Your task to perform on an android device: Find coffee shops on Maps Image 0: 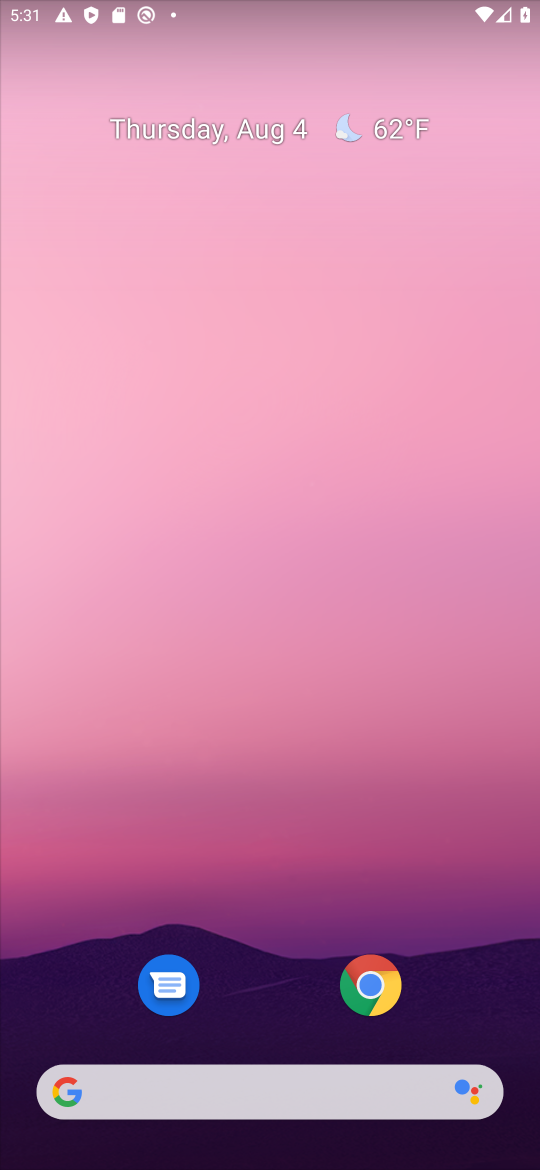
Step 0: drag from (304, 1069) to (340, 554)
Your task to perform on an android device: Find coffee shops on Maps Image 1: 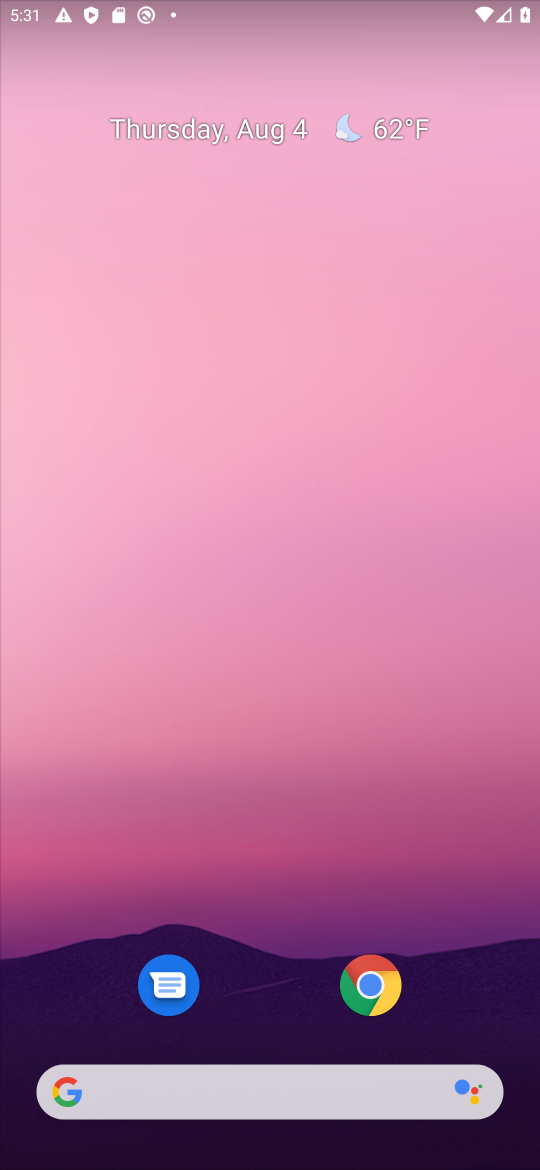
Step 1: drag from (248, 1067) to (336, 511)
Your task to perform on an android device: Find coffee shops on Maps Image 2: 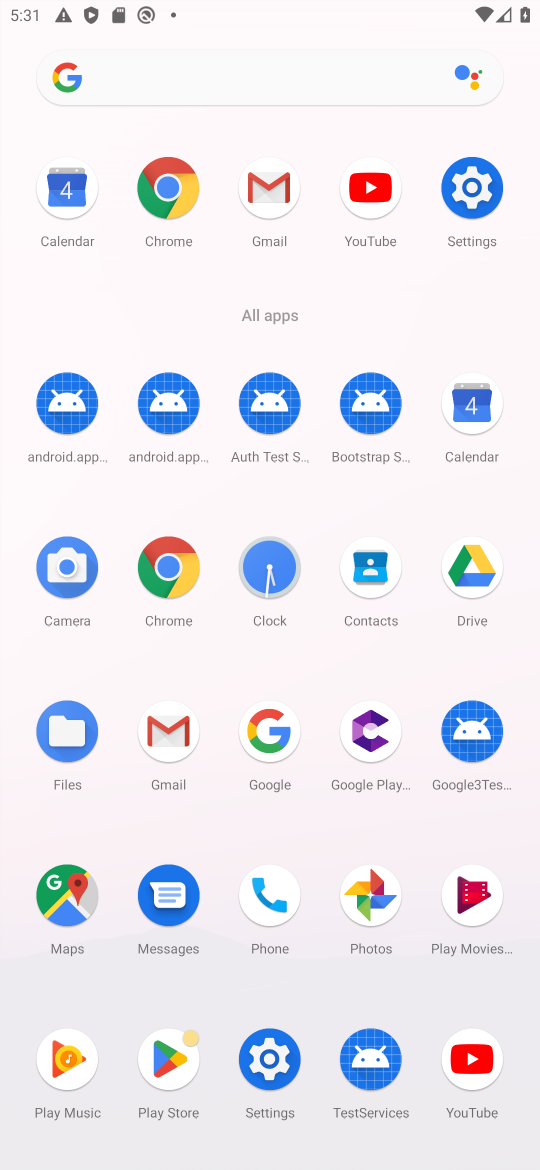
Step 2: click (64, 894)
Your task to perform on an android device: Find coffee shops on Maps Image 3: 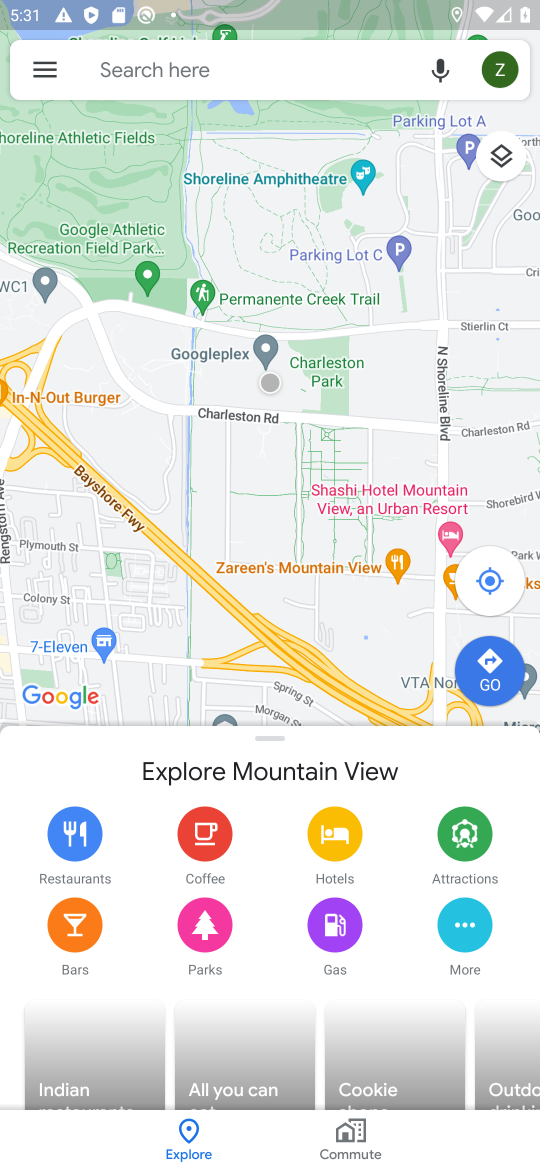
Step 3: click (220, 61)
Your task to perform on an android device: Find coffee shops on Maps Image 4: 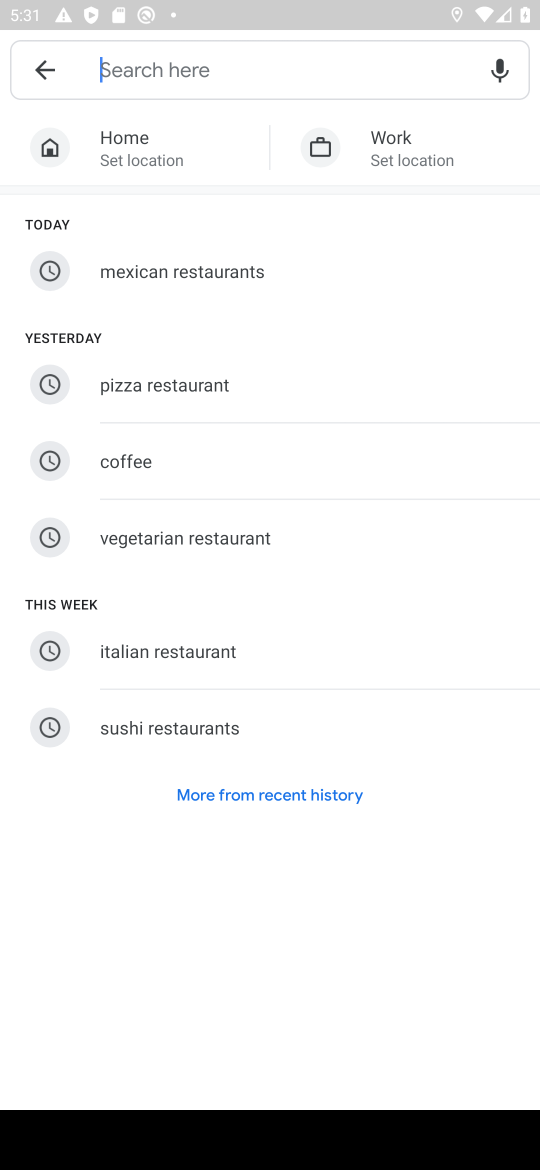
Step 4: click (202, 53)
Your task to perform on an android device: Find coffee shops on Maps Image 5: 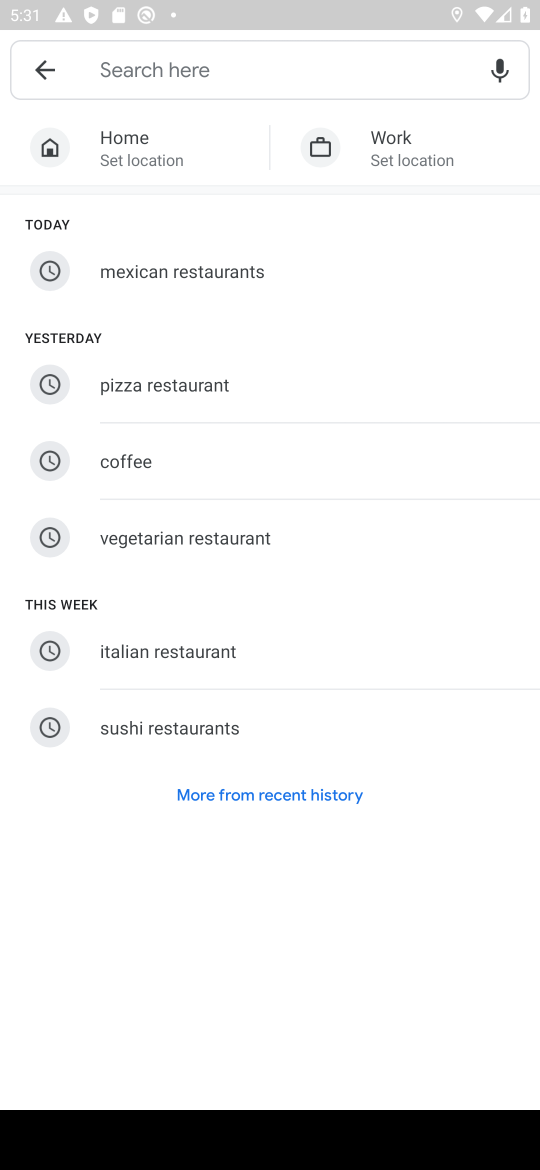
Step 5: type "coffee shops"
Your task to perform on an android device: Find coffee shops on Maps Image 6: 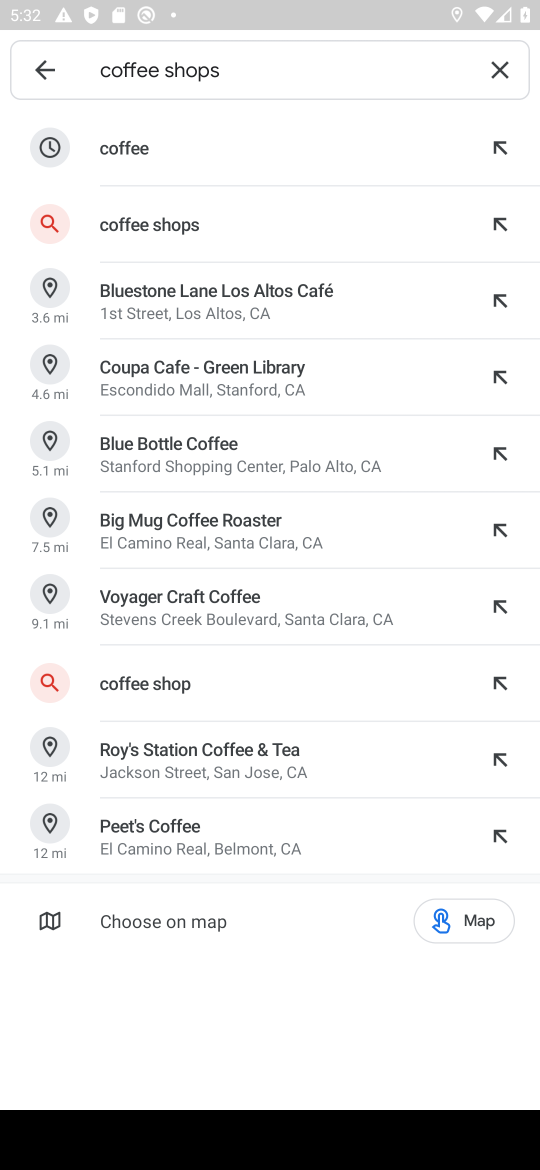
Step 6: click (178, 233)
Your task to perform on an android device: Find coffee shops on Maps Image 7: 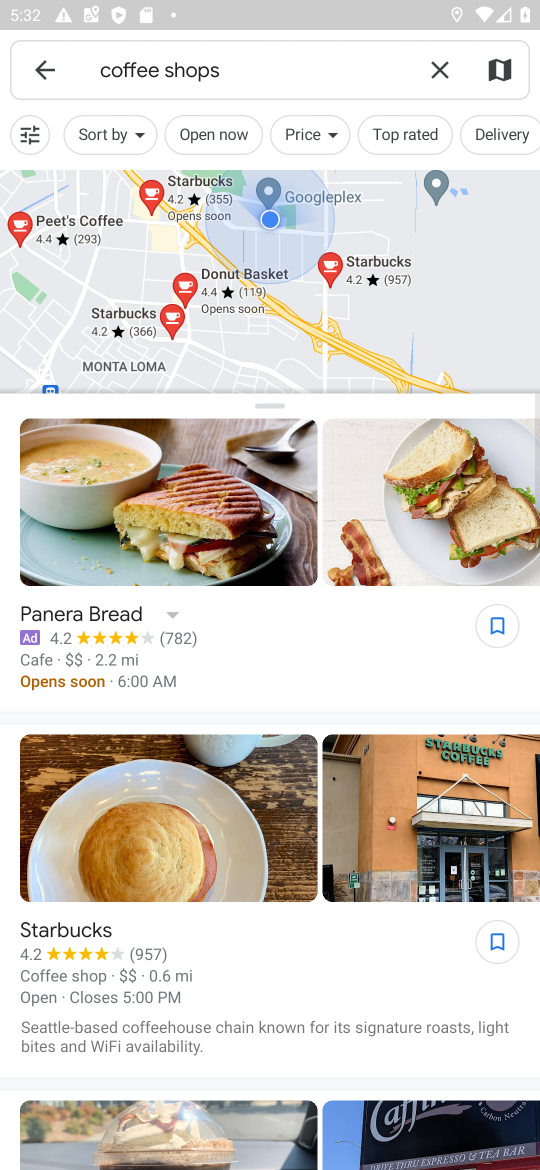
Step 7: task complete